Your task to perform on an android device: Go to notification settings Image 0: 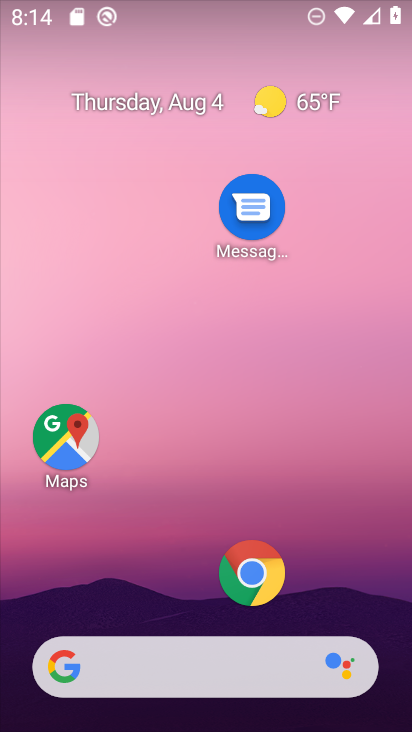
Step 0: drag from (170, 585) to (232, 172)
Your task to perform on an android device: Go to notification settings Image 1: 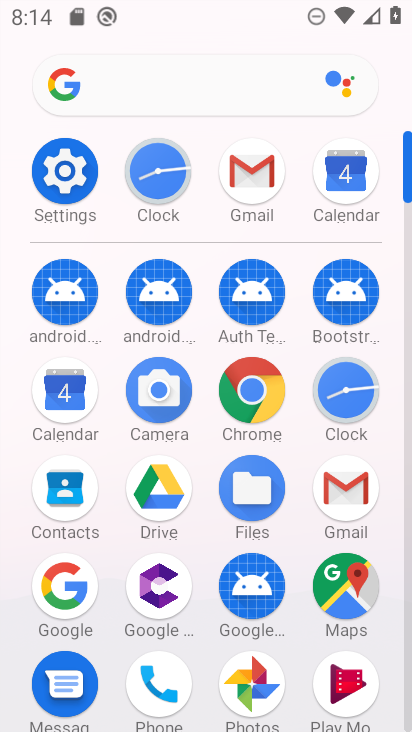
Step 1: click (60, 173)
Your task to perform on an android device: Go to notification settings Image 2: 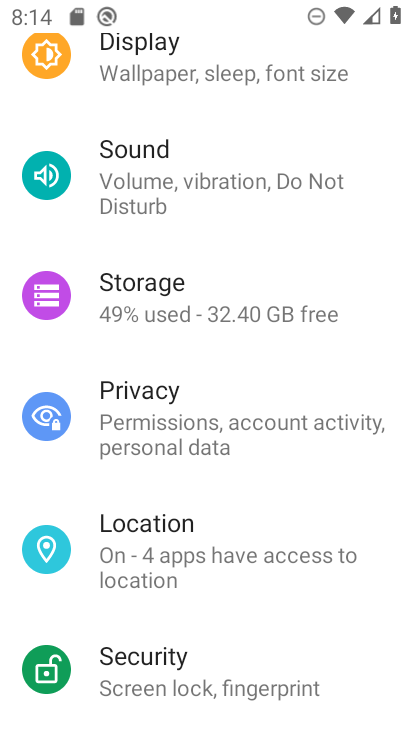
Step 2: drag from (228, 159) to (226, 647)
Your task to perform on an android device: Go to notification settings Image 3: 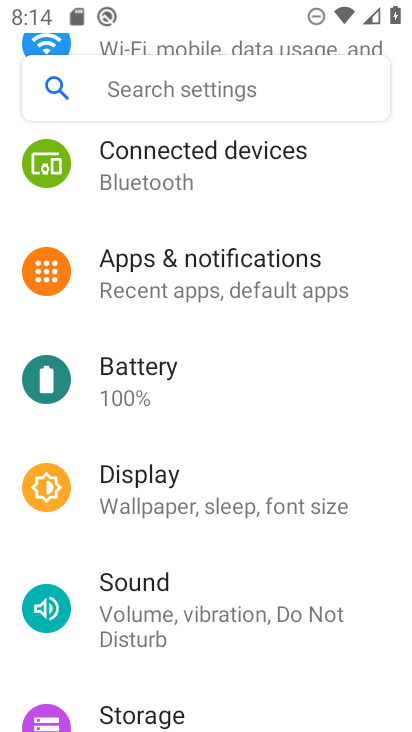
Step 3: click (227, 279)
Your task to perform on an android device: Go to notification settings Image 4: 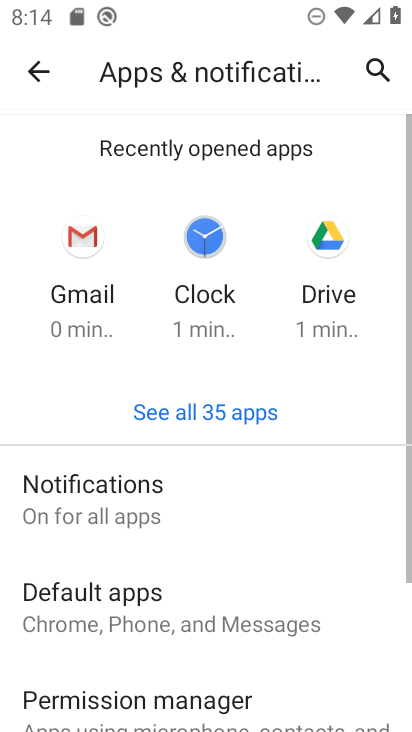
Step 4: click (101, 501)
Your task to perform on an android device: Go to notification settings Image 5: 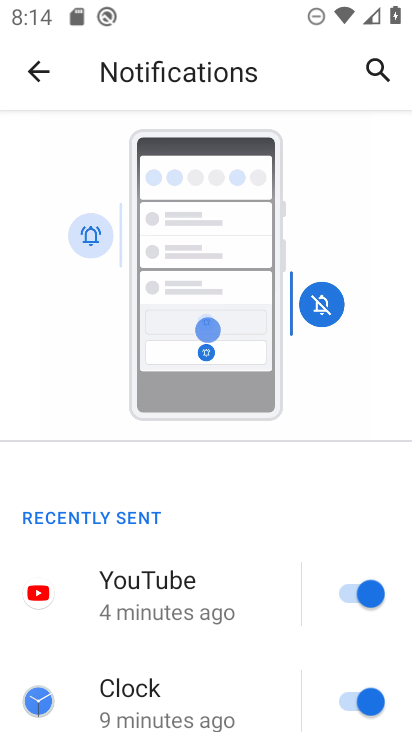
Step 5: task complete